Your task to perform on an android device: star an email in the gmail app Image 0: 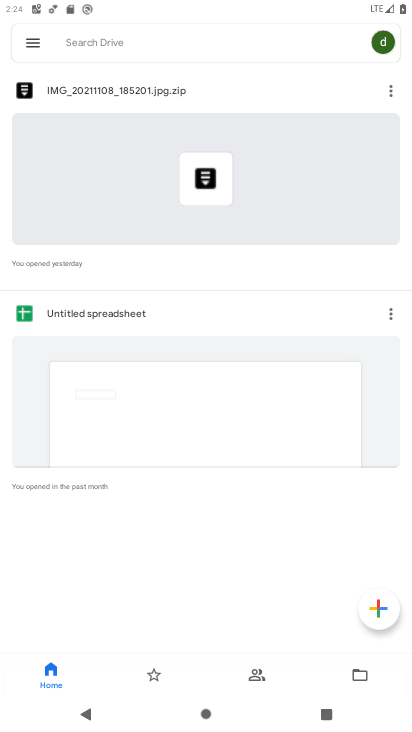
Step 0: press home button
Your task to perform on an android device: star an email in the gmail app Image 1: 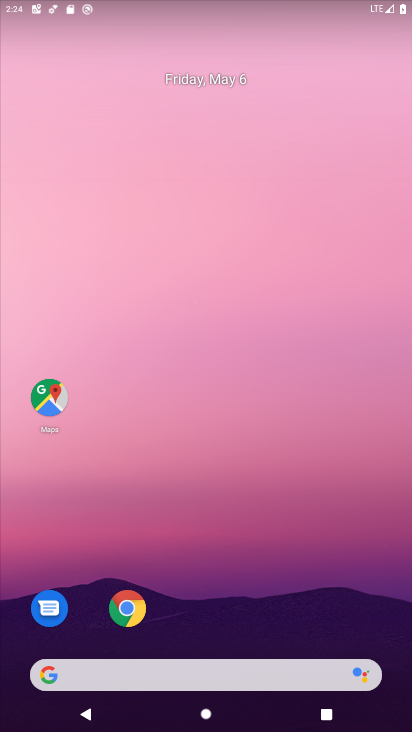
Step 1: drag from (184, 625) to (218, 182)
Your task to perform on an android device: star an email in the gmail app Image 2: 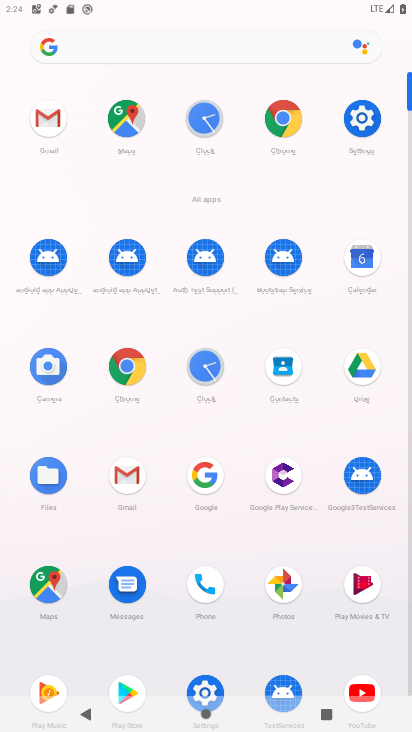
Step 2: click (128, 490)
Your task to perform on an android device: star an email in the gmail app Image 3: 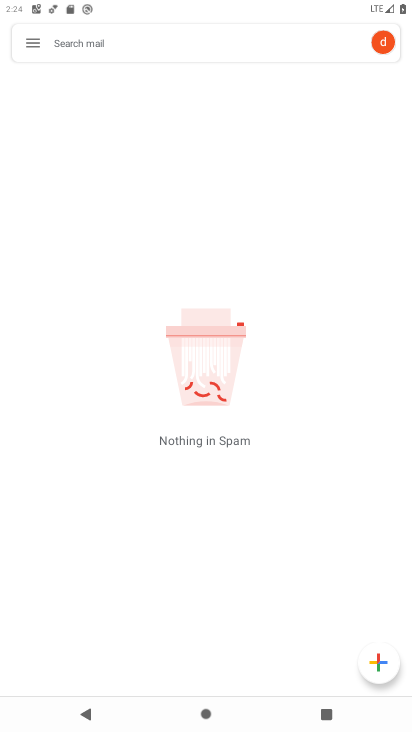
Step 3: click (28, 48)
Your task to perform on an android device: star an email in the gmail app Image 4: 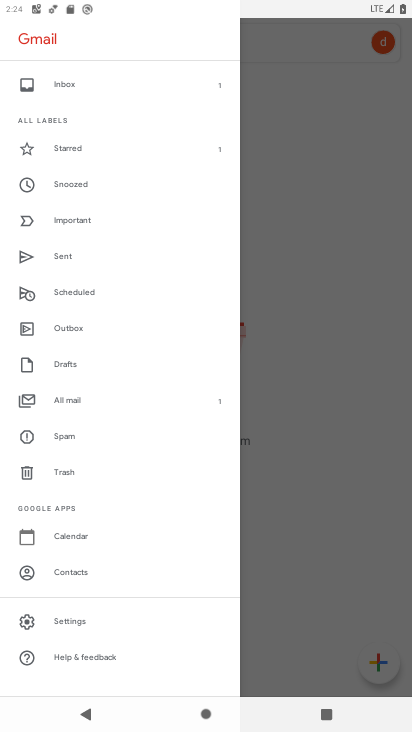
Step 4: click (84, 405)
Your task to perform on an android device: star an email in the gmail app Image 5: 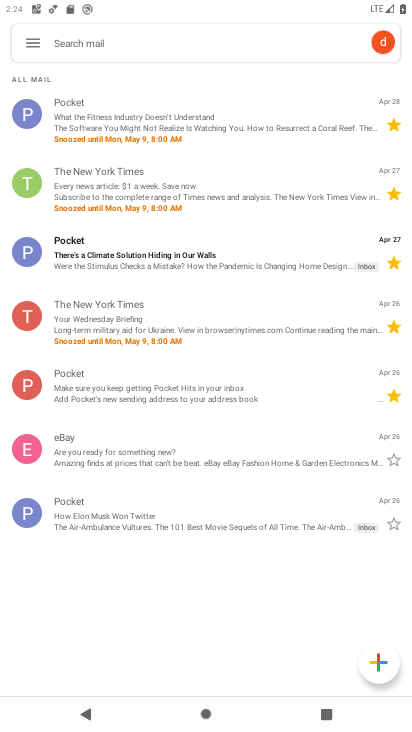
Step 5: click (388, 455)
Your task to perform on an android device: star an email in the gmail app Image 6: 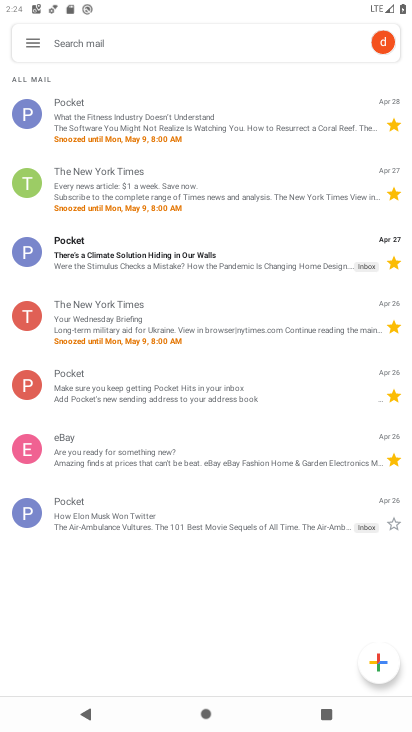
Step 6: task complete